Your task to perform on an android device: turn off notifications settings in the gmail app Image 0: 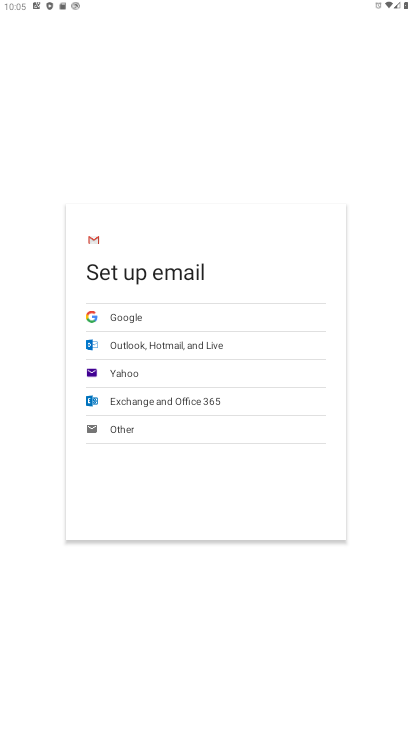
Step 0: press home button
Your task to perform on an android device: turn off notifications settings in the gmail app Image 1: 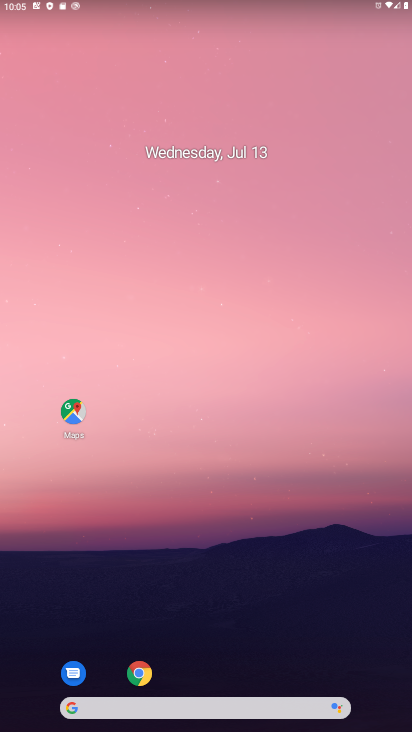
Step 1: drag from (192, 660) to (300, 55)
Your task to perform on an android device: turn off notifications settings in the gmail app Image 2: 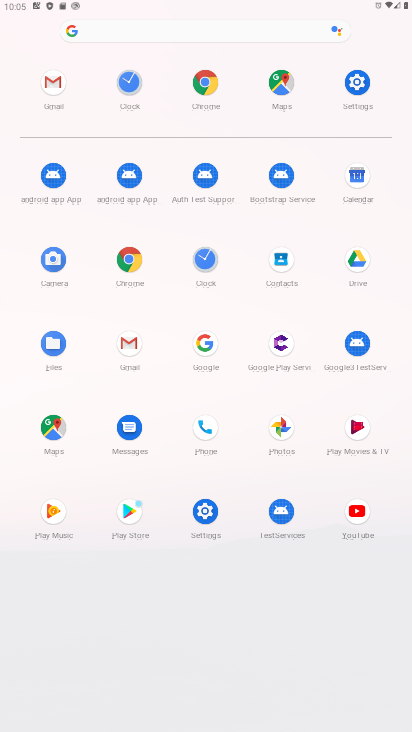
Step 2: click (49, 77)
Your task to perform on an android device: turn off notifications settings in the gmail app Image 3: 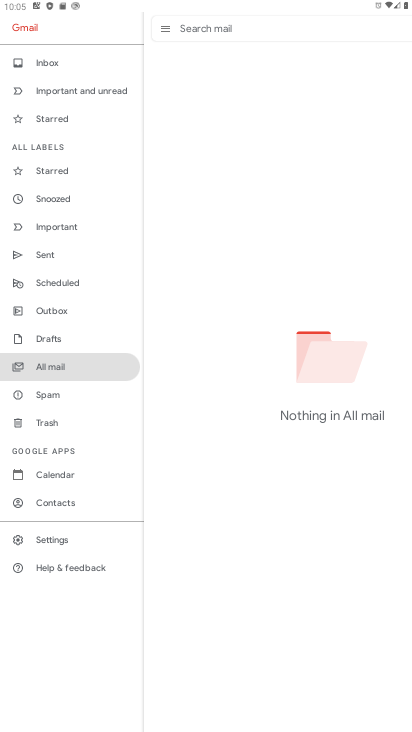
Step 3: click (94, 534)
Your task to perform on an android device: turn off notifications settings in the gmail app Image 4: 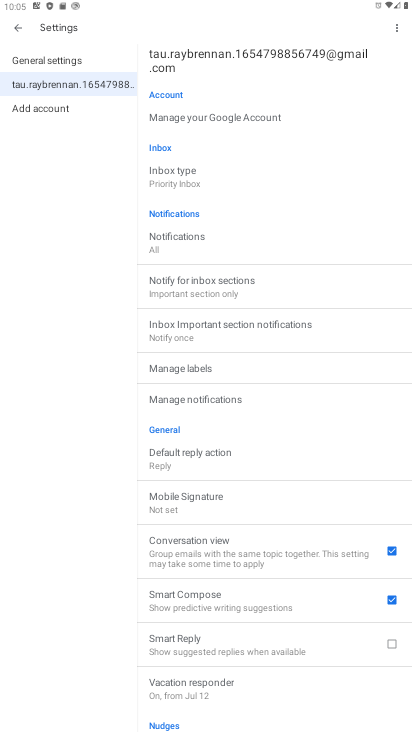
Step 4: click (171, 248)
Your task to perform on an android device: turn off notifications settings in the gmail app Image 5: 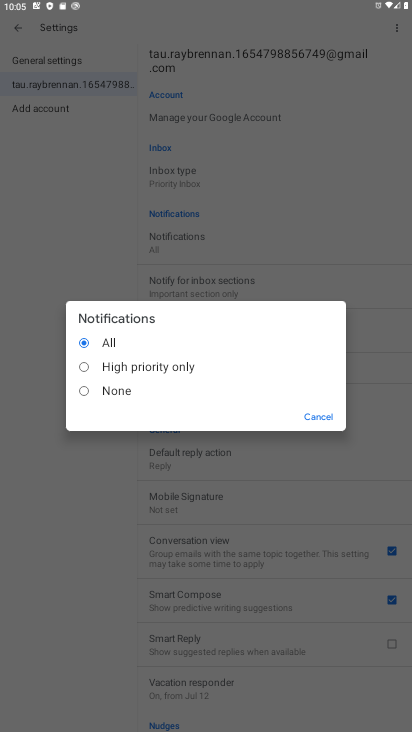
Step 5: click (108, 393)
Your task to perform on an android device: turn off notifications settings in the gmail app Image 6: 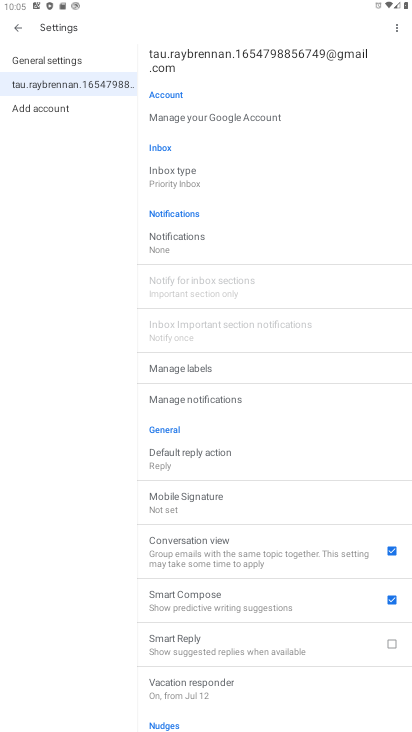
Step 6: task complete